Your task to perform on an android device: turn smart compose on in the gmail app Image 0: 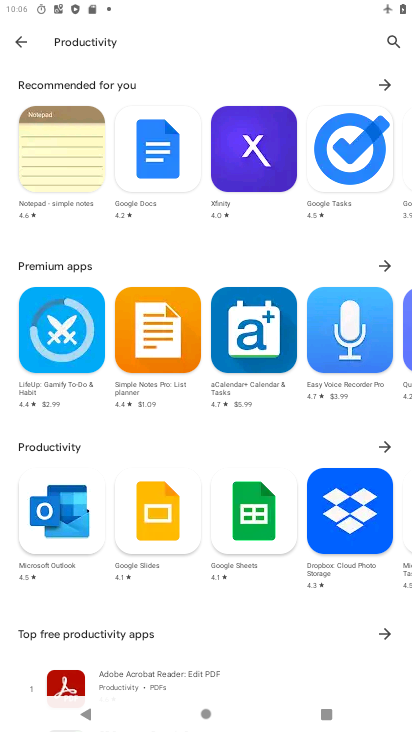
Step 0: press home button
Your task to perform on an android device: turn smart compose on in the gmail app Image 1: 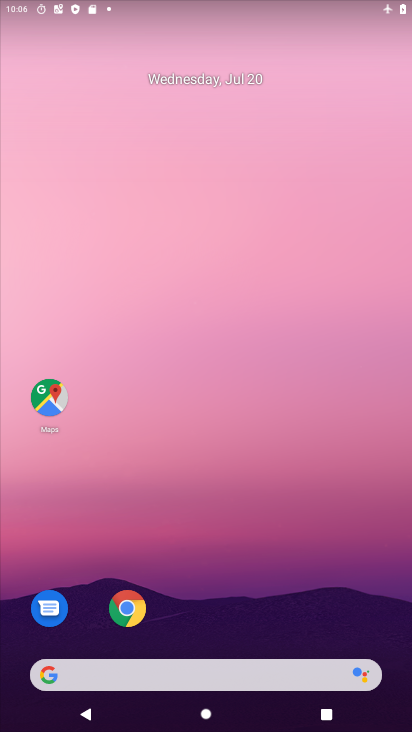
Step 1: drag from (270, 482) to (281, 130)
Your task to perform on an android device: turn smart compose on in the gmail app Image 2: 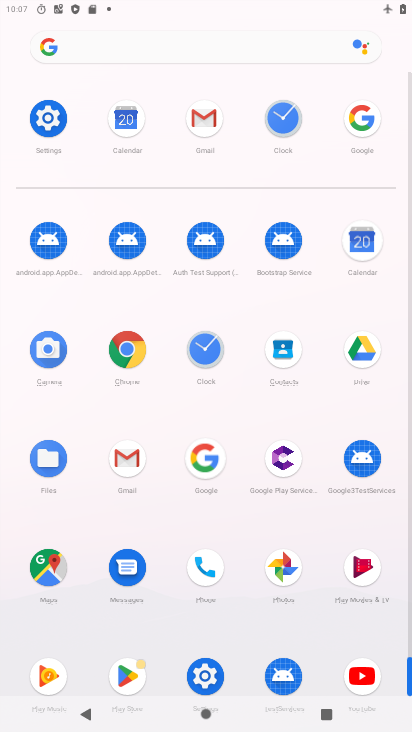
Step 2: click (209, 113)
Your task to perform on an android device: turn smart compose on in the gmail app Image 3: 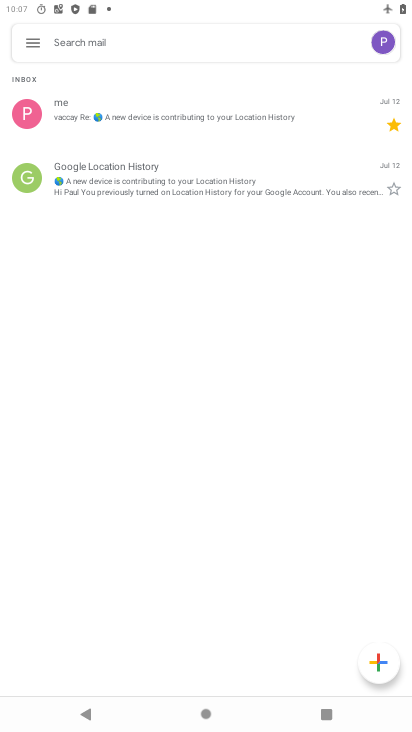
Step 3: click (26, 45)
Your task to perform on an android device: turn smart compose on in the gmail app Image 4: 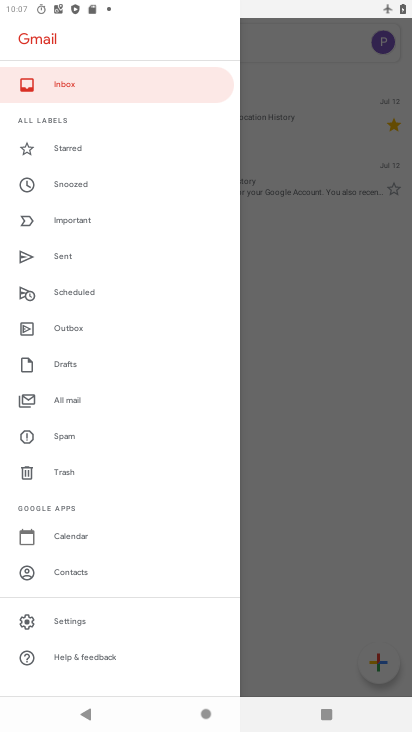
Step 4: click (84, 618)
Your task to perform on an android device: turn smart compose on in the gmail app Image 5: 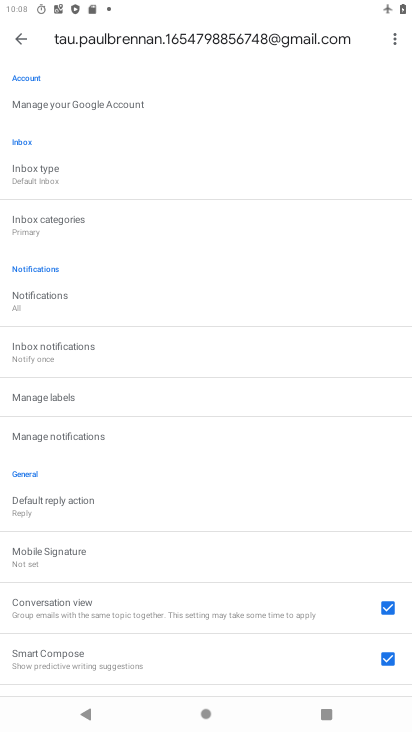
Step 5: task complete